Your task to perform on an android device: Go to network settings Image 0: 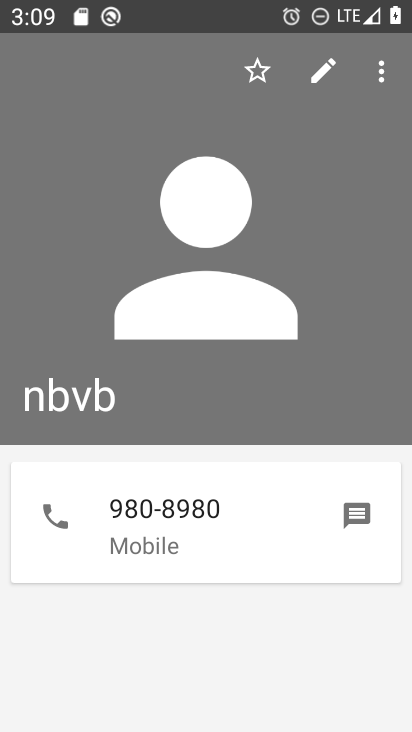
Step 0: drag from (189, 640) to (234, 95)
Your task to perform on an android device: Go to network settings Image 1: 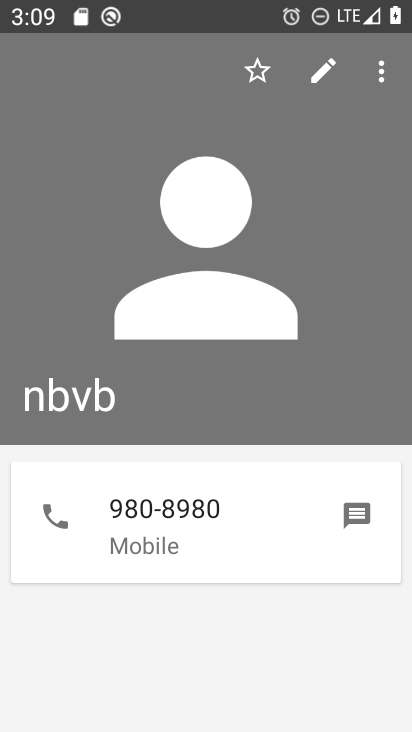
Step 1: press home button
Your task to perform on an android device: Go to network settings Image 2: 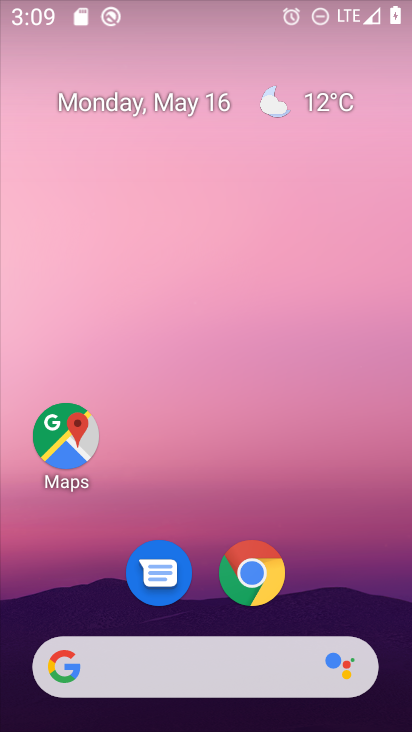
Step 2: drag from (167, 657) to (144, 176)
Your task to perform on an android device: Go to network settings Image 3: 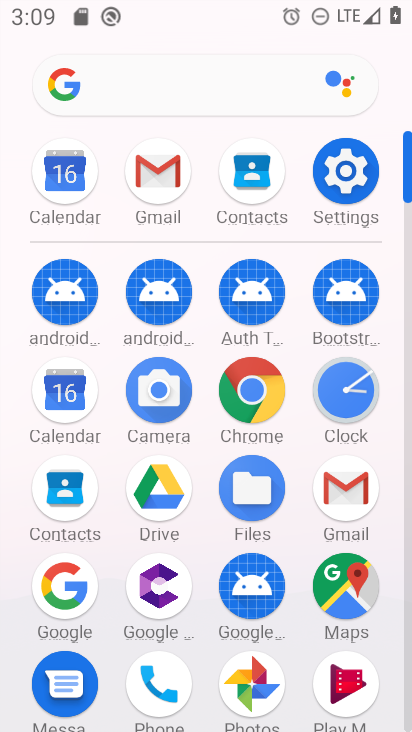
Step 3: click (347, 151)
Your task to perform on an android device: Go to network settings Image 4: 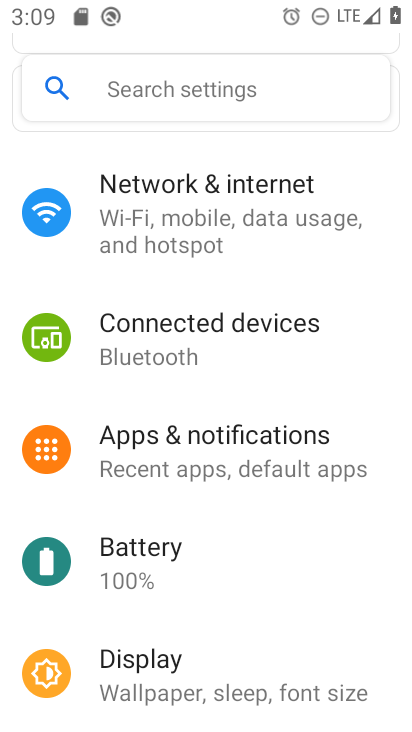
Step 4: click (290, 205)
Your task to perform on an android device: Go to network settings Image 5: 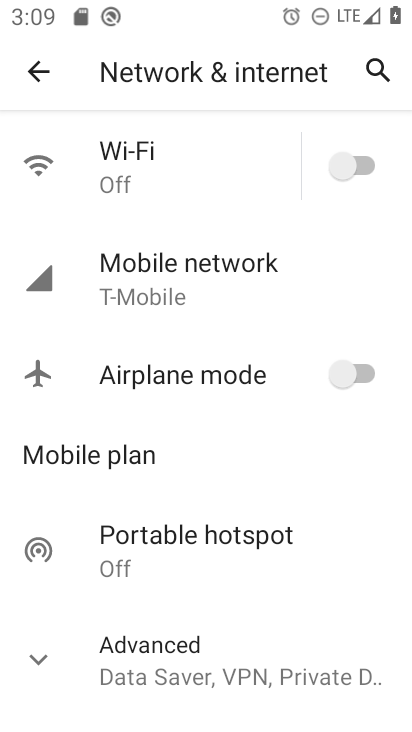
Step 5: task complete